Your task to perform on an android device: Open sound settings Image 0: 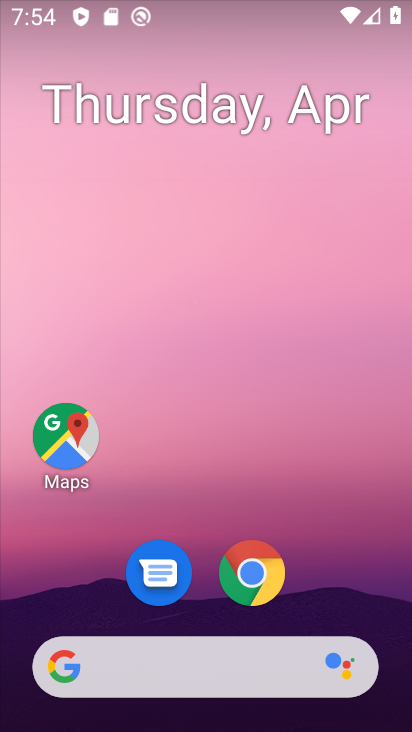
Step 0: drag from (213, 726) to (189, 192)
Your task to perform on an android device: Open sound settings Image 1: 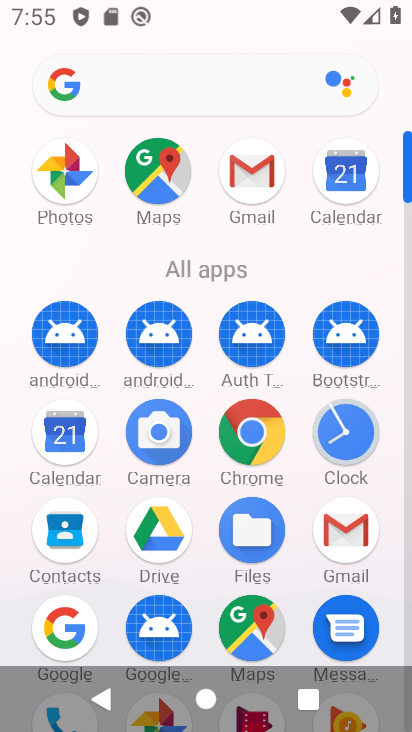
Step 1: drag from (208, 573) to (208, 274)
Your task to perform on an android device: Open sound settings Image 2: 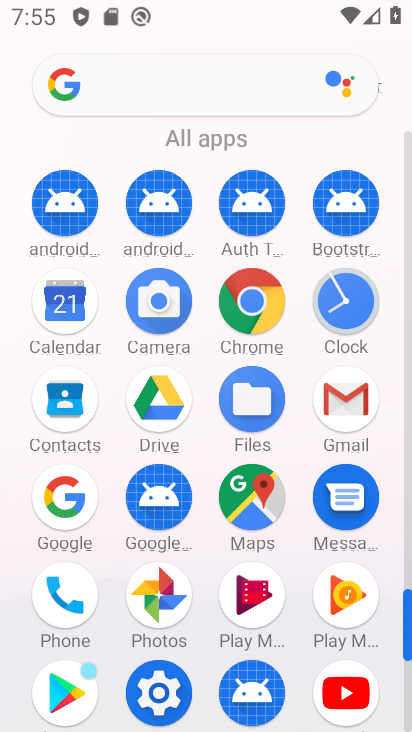
Step 2: click (154, 686)
Your task to perform on an android device: Open sound settings Image 3: 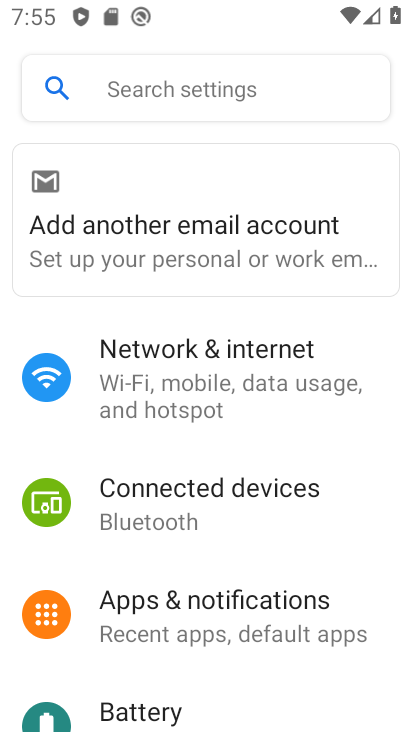
Step 3: drag from (205, 666) to (220, 282)
Your task to perform on an android device: Open sound settings Image 4: 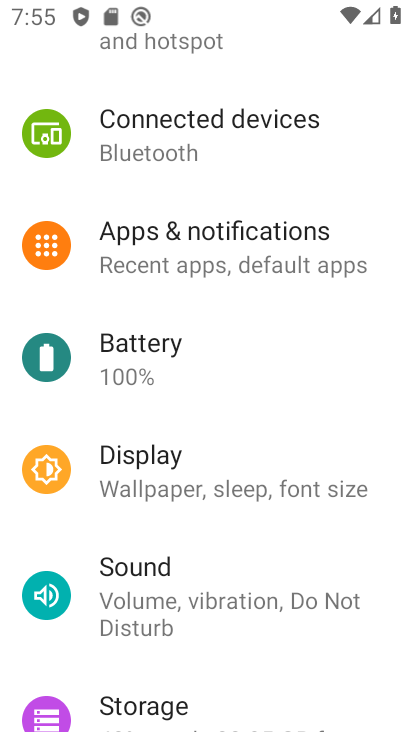
Step 4: click (130, 591)
Your task to perform on an android device: Open sound settings Image 5: 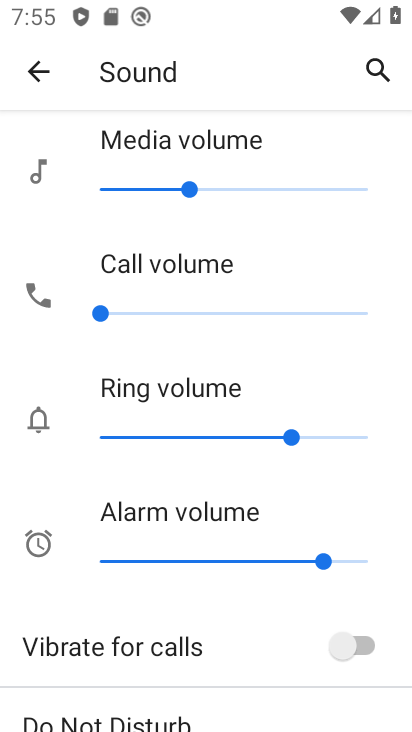
Step 5: task complete